Your task to perform on an android device: Go to calendar. Show me events next week Image 0: 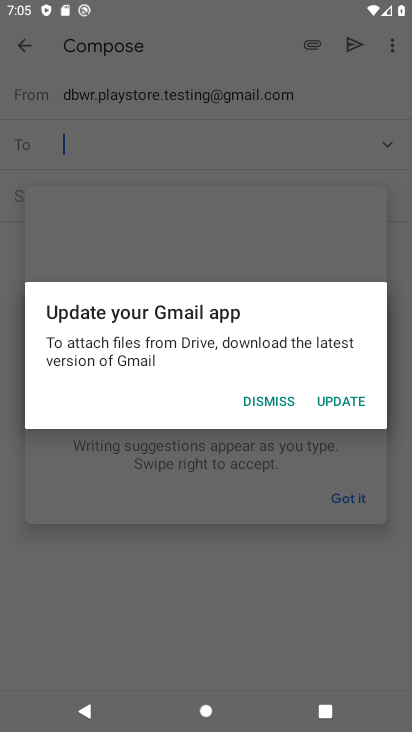
Step 0: press home button
Your task to perform on an android device: Go to calendar. Show me events next week Image 1: 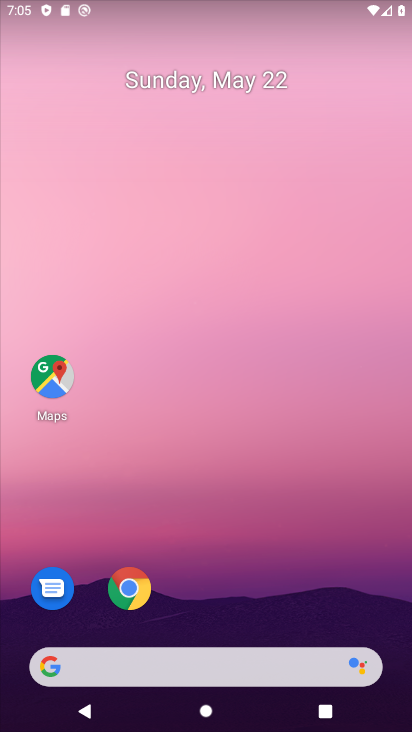
Step 1: drag from (250, 474) to (189, 12)
Your task to perform on an android device: Go to calendar. Show me events next week Image 2: 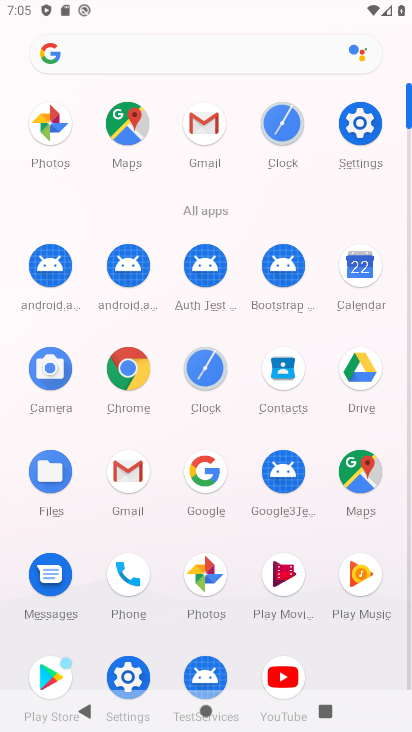
Step 2: click (355, 266)
Your task to perform on an android device: Go to calendar. Show me events next week Image 3: 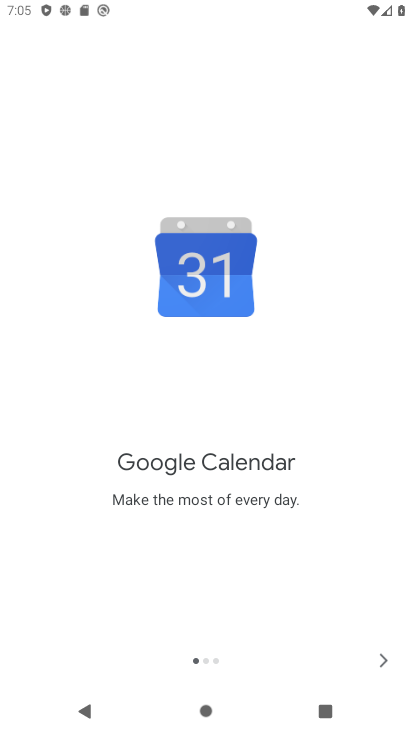
Step 3: click (380, 659)
Your task to perform on an android device: Go to calendar. Show me events next week Image 4: 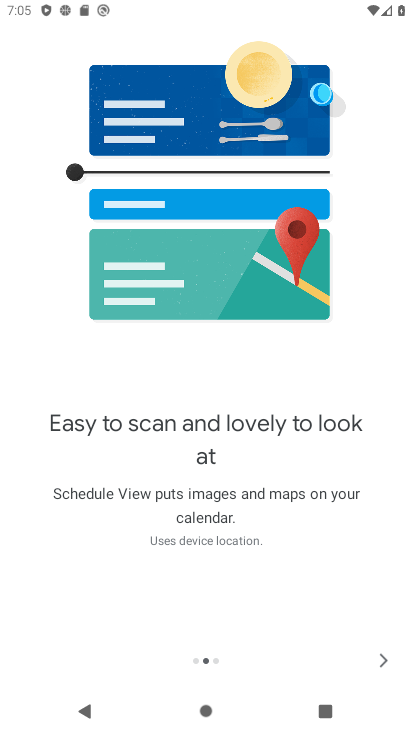
Step 4: click (380, 659)
Your task to perform on an android device: Go to calendar. Show me events next week Image 5: 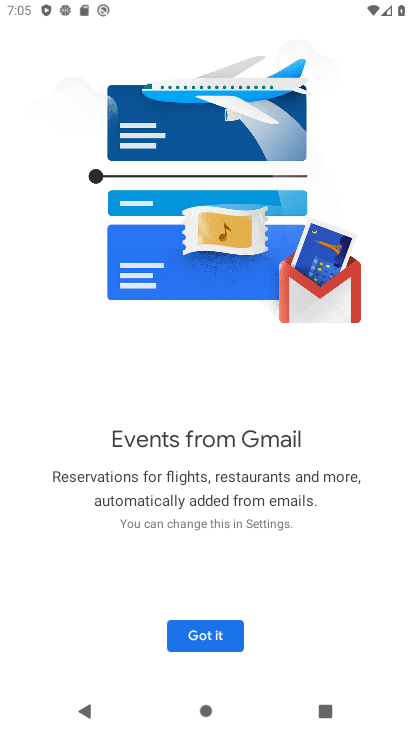
Step 5: click (206, 634)
Your task to perform on an android device: Go to calendar. Show me events next week Image 6: 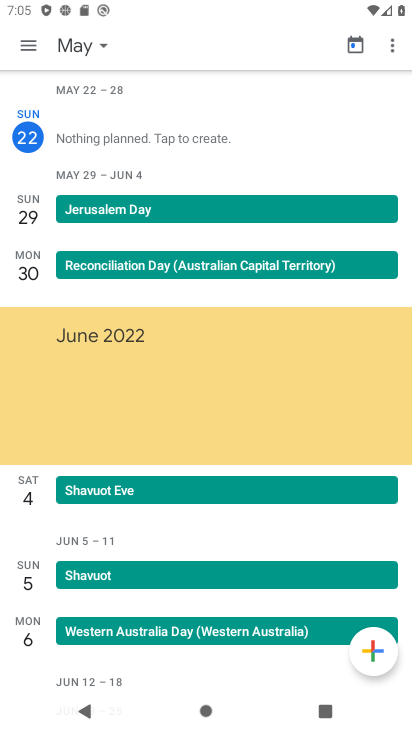
Step 6: click (32, 43)
Your task to perform on an android device: Go to calendar. Show me events next week Image 7: 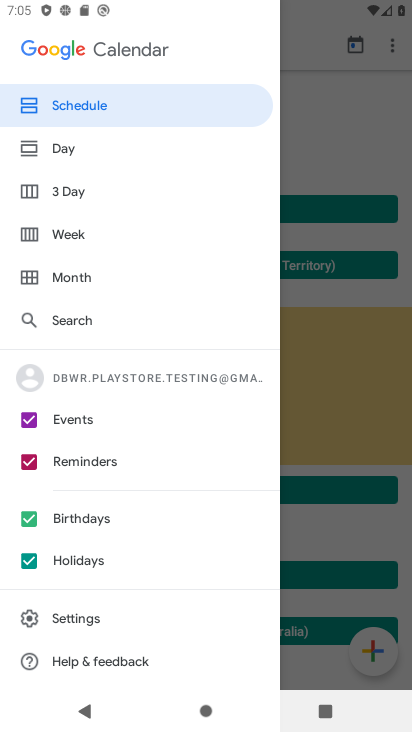
Step 7: click (66, 235)
Your task to perform on an android device: Go to calendar. Show me events next week Image 8: 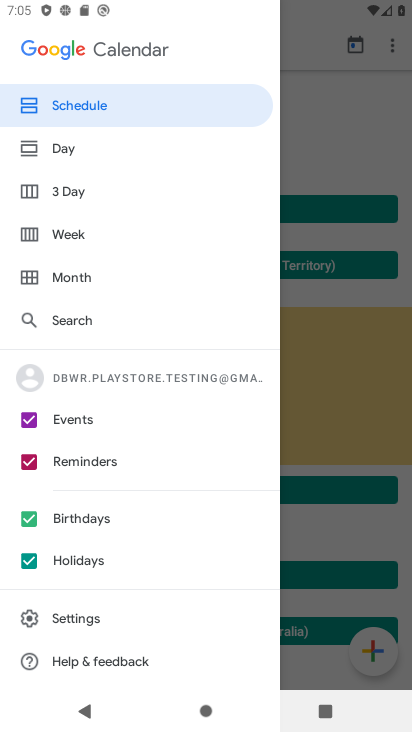
Step 8: click (67, 232)
Your task to perform on an android device: Go to calendar. Show me events next week Image 9: 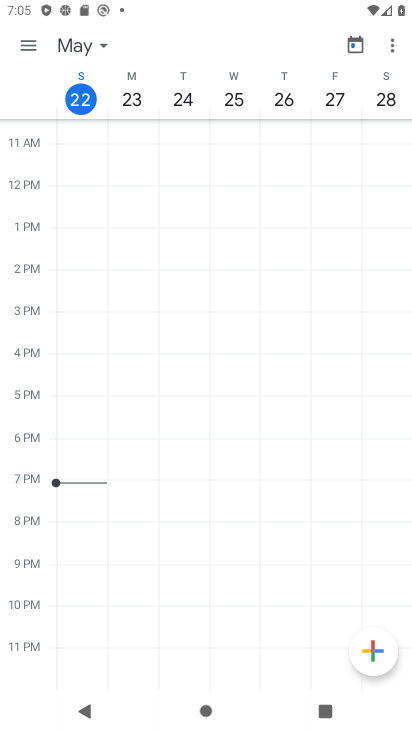
Step 9: click (101, 41)
Your task to perform on an android device: Go to calendar. Show me events next week Image 10: 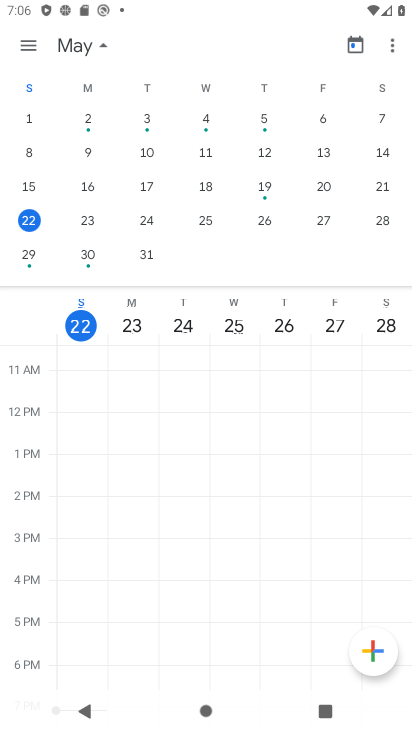
Step 10: click (81, 248)
Your task to perform on an android device: Go to calendar. Show me events next week Image 11: 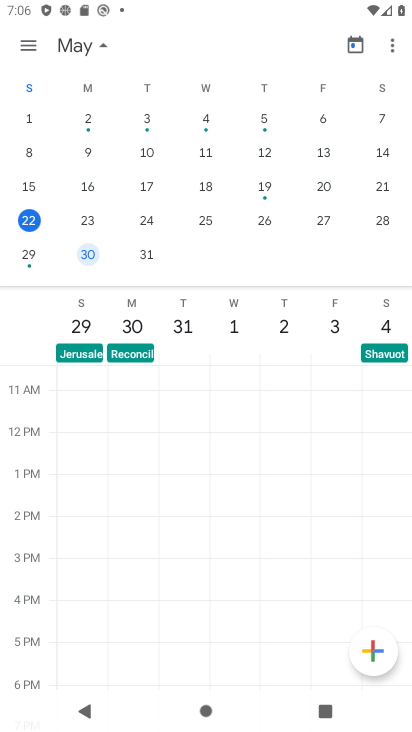
Step 11: task complete